Your task to perform on an android device: Search for sushi restaurants on Maps Image 0: 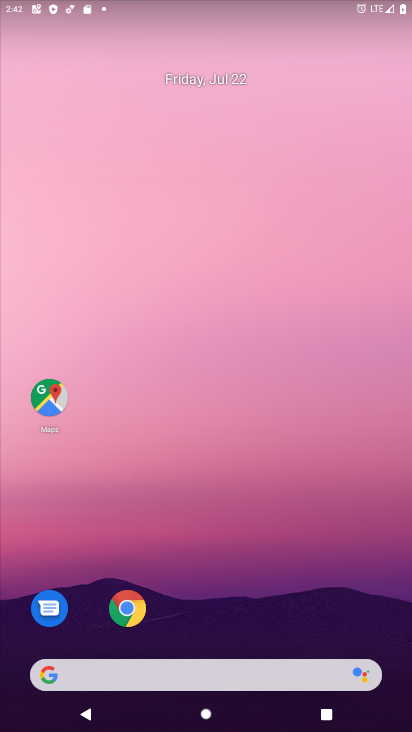
Step 0: click (41, 389)
Your task to perform on an android device: Search for sushi restaurants on Maps Image 1: 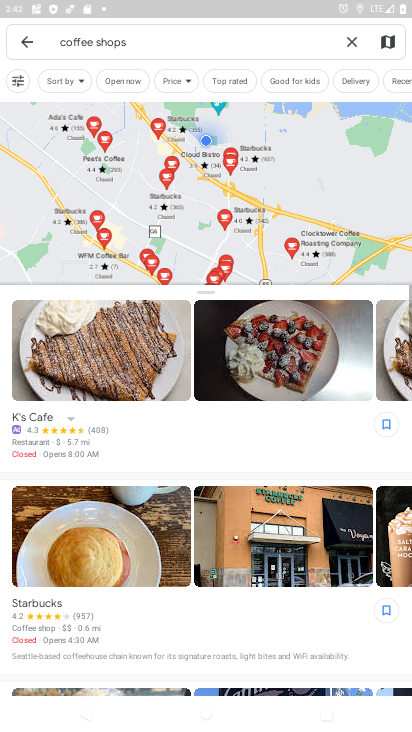
Step 1: click (343, 39)
Your task to perform on an android device: Search for sushi restaurants on Maps Image 2: 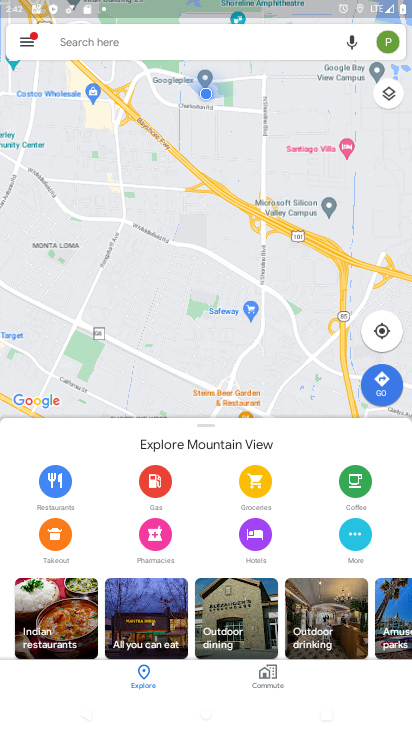
Step 2: click (123, 37)
Your task to perform on an android device: Search for sushi restaurants on Maps Image 3: 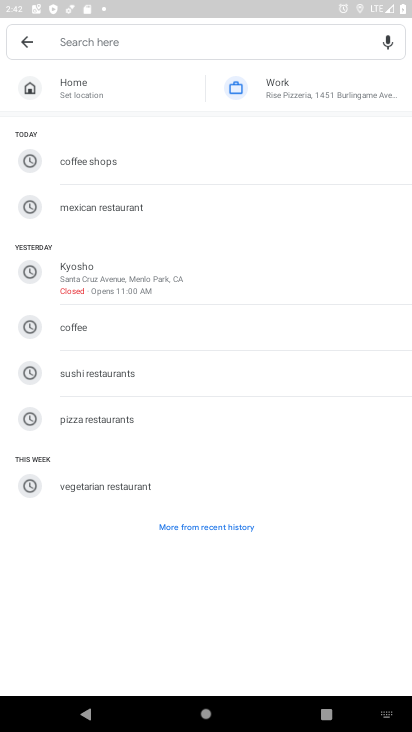
Step 3: type " sushi restaurants "
Your task to perform on an android device: Search for sushi restaurants on Maps Image 4: 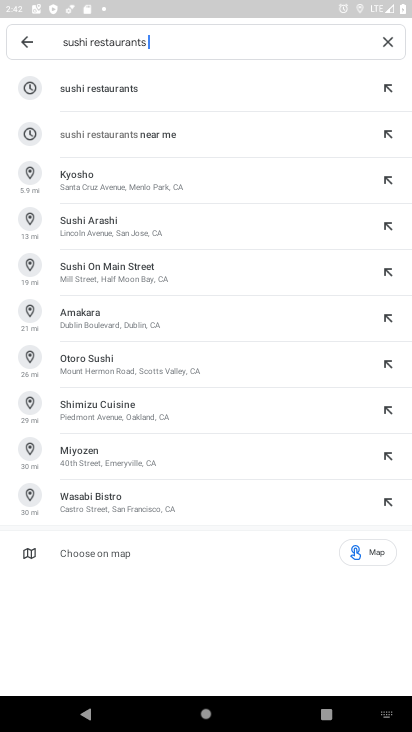
Step 4: click (102, 85)
Your task to perform on an android device: Search for sushi restaurants on Maps Image 5: 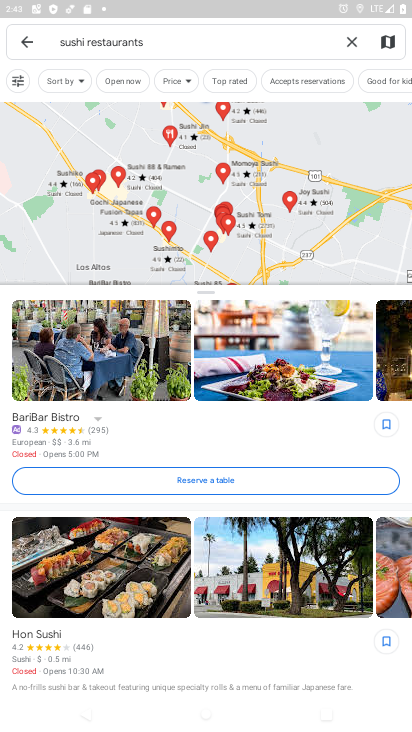
Step 5: task complete